Your task to perform on an android device: Show me productivity apps on the Play Store Image 0: 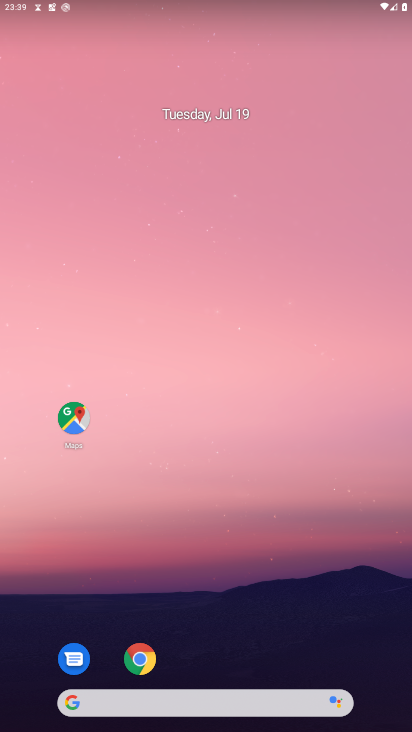
Step 0: drag from (269, 614) to (242, 216)
Your task to perform on an android device: Show me productivity apps on the Play Store Image 1: 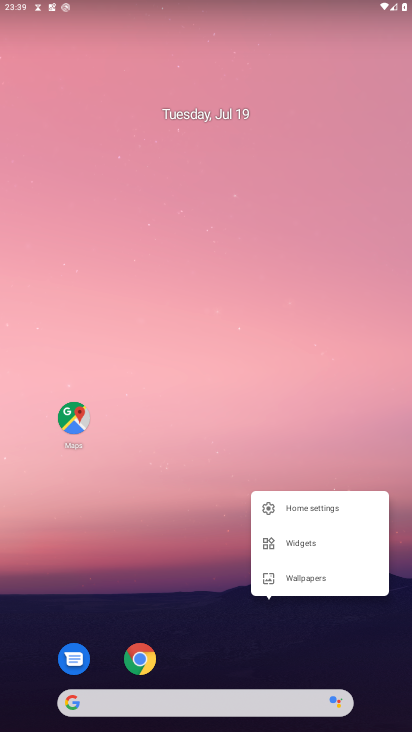
Step 1: click (229, 369)
Your task to perform on an android device: Show me productivity apps on the Play Store Image 2: 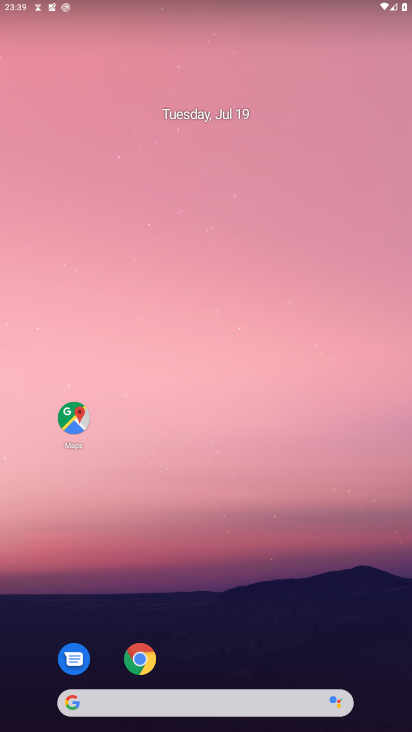
Step 2: drag from (268, 585) to (291, 61)
Your task to perform on an android device: Show me productivity apps on the Play Store Image 3: 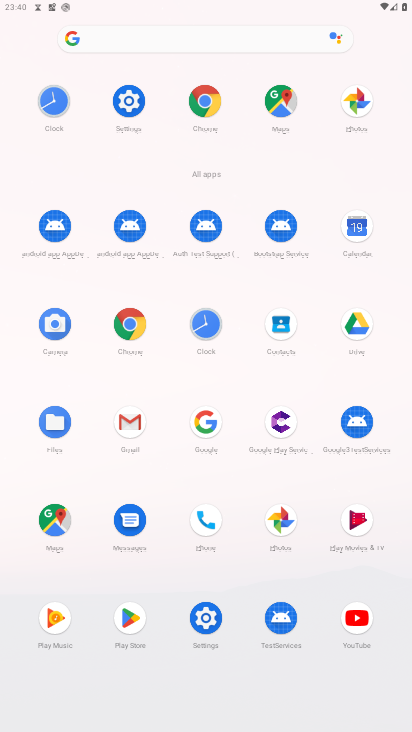
Step 3: click (128, 615)
Your task to perform on an android device: Show me productivity apps on the Play Store Image 4: 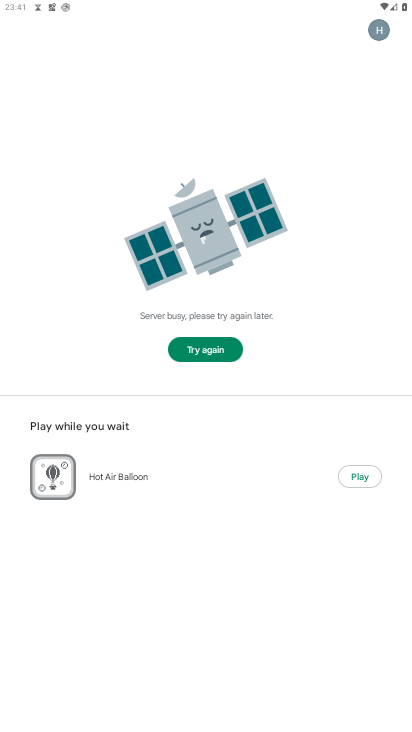
Step 4: click (208, 346)
Your task to perform on an android device: Show me productivity apps on the Play Store Image 5: 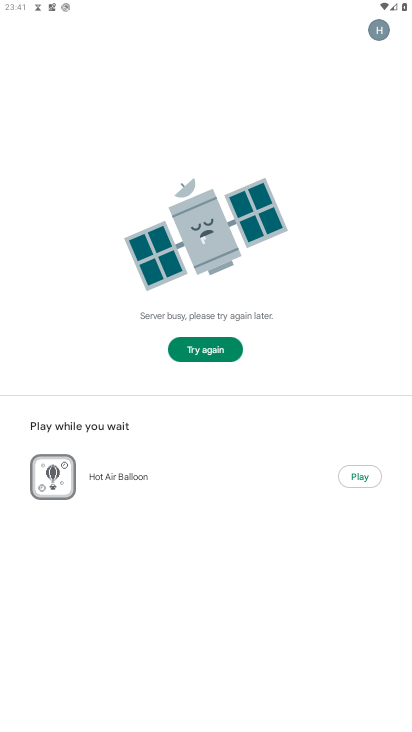
Step 5: task complete